Your task to perform on an android device: toggle show notifications on the lock screen Image 0: 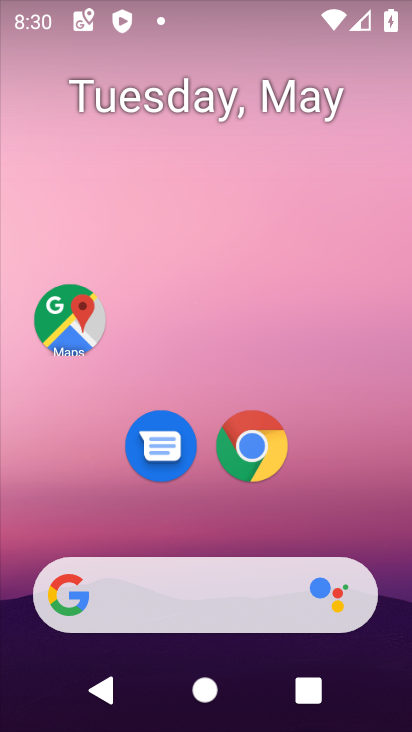
Step 0: drag from (347, 530) to (354, 9)
Your task to perform on an android device: toggle show notifications on the lock screen Image 1: 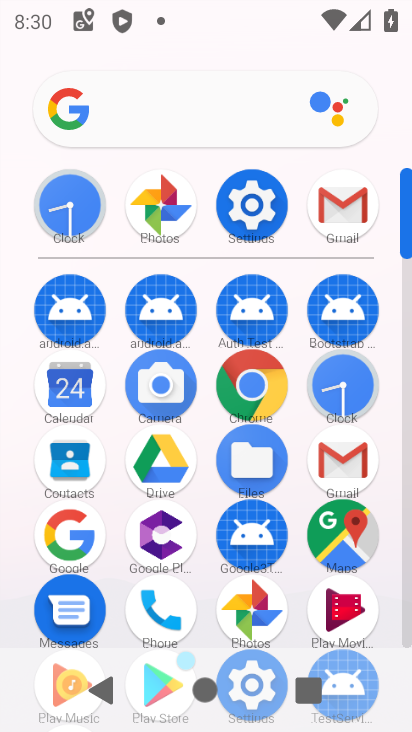
Step 1: click (253, 207)
Your task to perform on an android device: toggle show notifications on the lock screen Image 2: 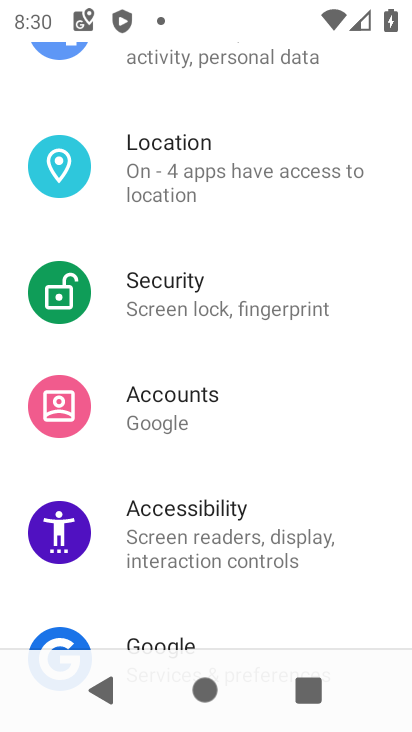
Step 2: drag from (335, 201) to (257, 435)
Your task to perform on an android device: toggle show notifications on the lock screen Image 3: 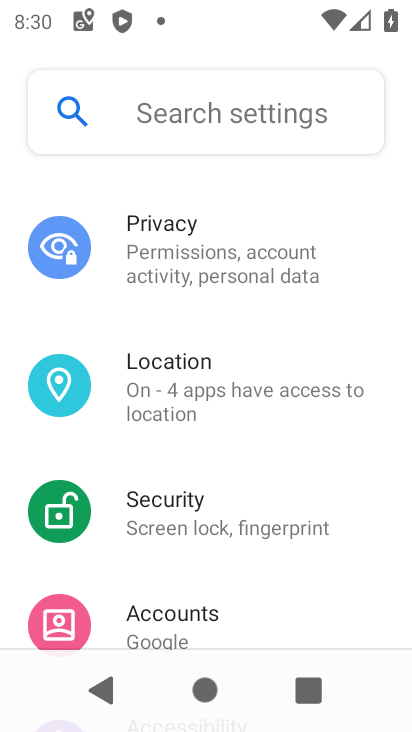
Step 3: drag from (281, 235) to (223, 462)
Your task to perform on an android device: toggle show notifications on the lock screen Image 4: 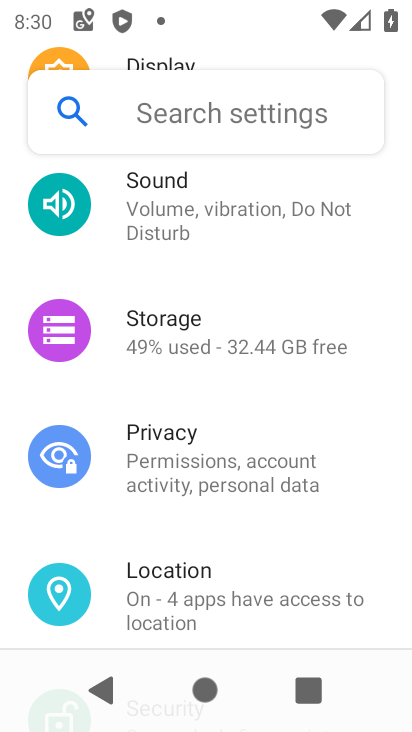
Step 4: drag from (263, 274) to (185, 481)
Your task to perform on an android device: toggle show notifications on the lock screen Image 5: 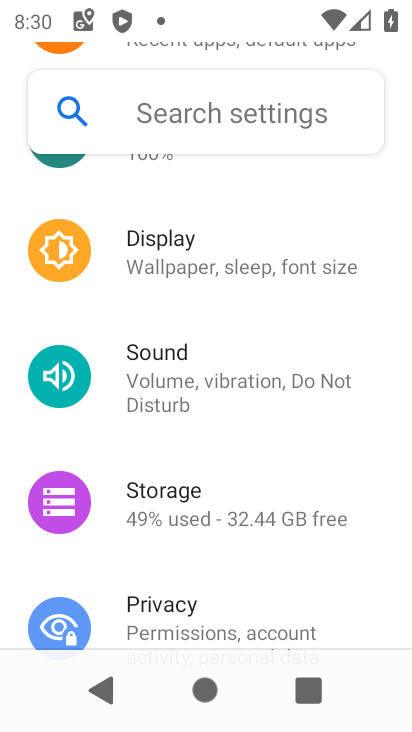
Step 5: drag from (220, 265) to (168, 470)
Your task to perform on an android device: toggle show notifications on the lock screen Image 6: 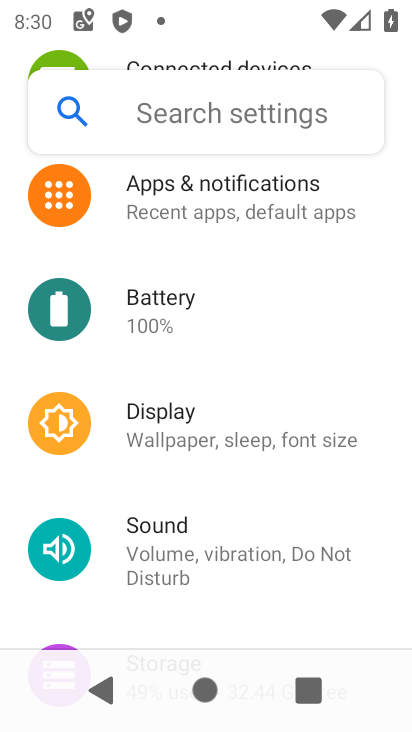
Step 6: click (221, 212)
Your task to perform on an android device: toggle show notifications on the lock screen Image 7: 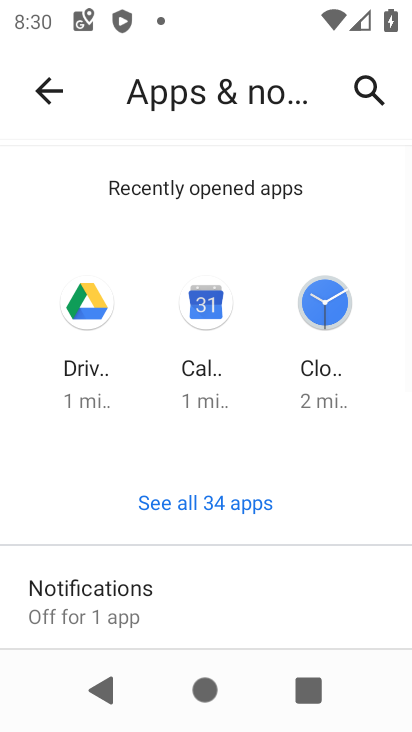
Step 7: drag from (220, 527) to (218, 189)
Your task to perform on an android device: toggle show notifications on the lock screen Image 8: 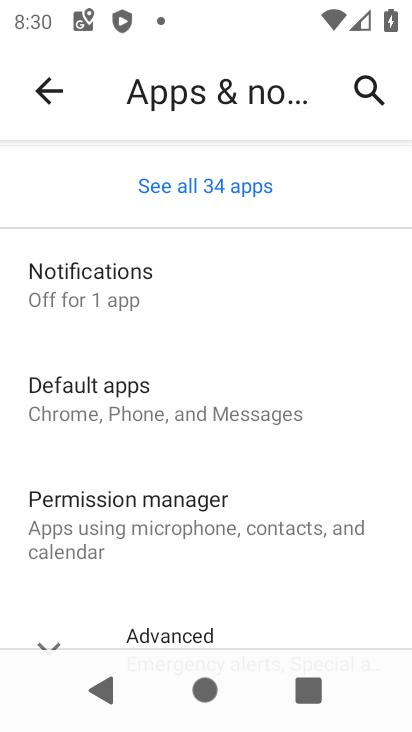
Step 8: click (78, 289)
Your task to perform on an android device: toggle show notifications on the lock screen Image 9: 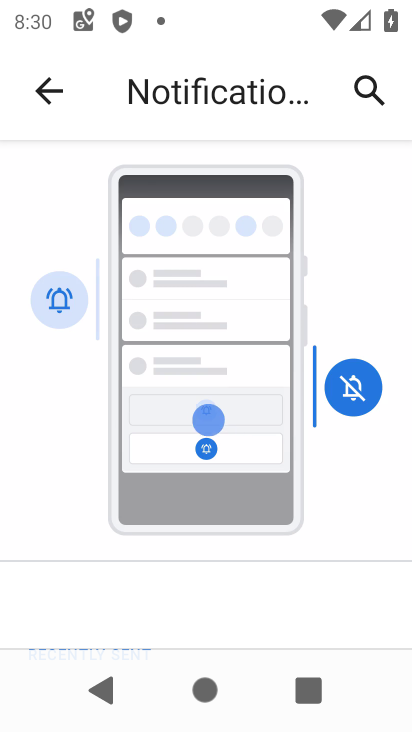
Step 9: drag from (115, 580) to (122, 220)
Your task to perform on an android device: toggle show notifications on the lock screen Image 10: 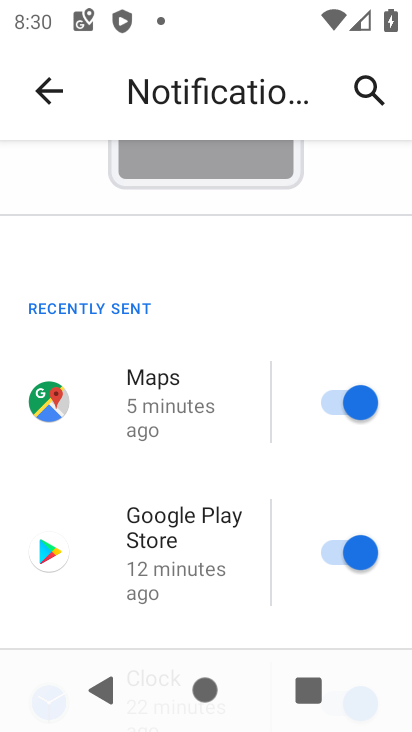
Step 10: drag from (103, 555) to (128, 192)
Your task to perform on an android device: toggle show notifications on the lock screen Image 11: 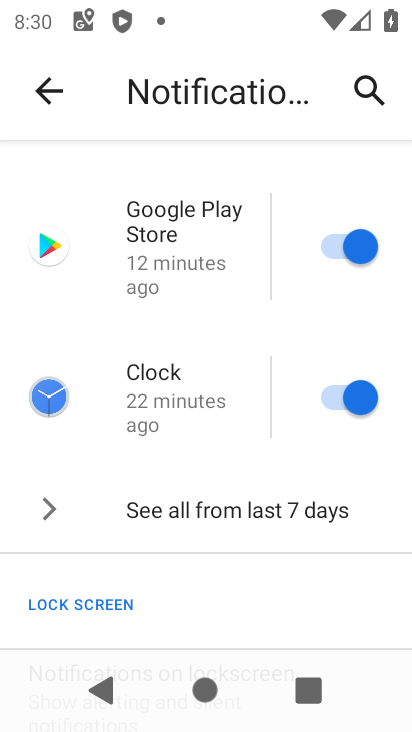
Step 11: drag from (103, 521) to (105, 242)
Your task to perform on an android device: toggle show notifications on the lock screen Image 12: 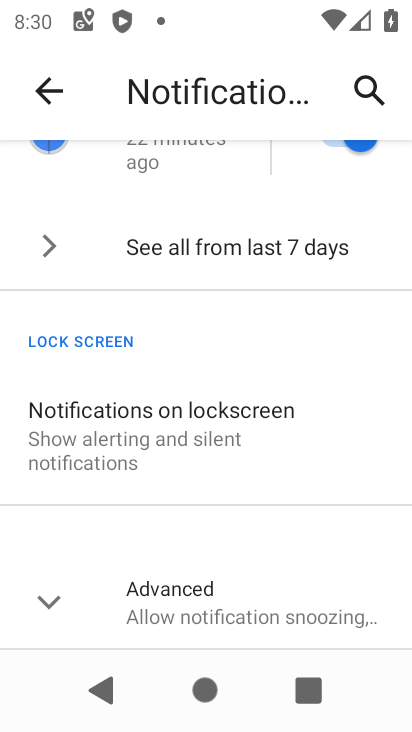
Step 12: click (80, 457)
Your task to perform on an android device: toggle show notifications on the lock screen Image 13: 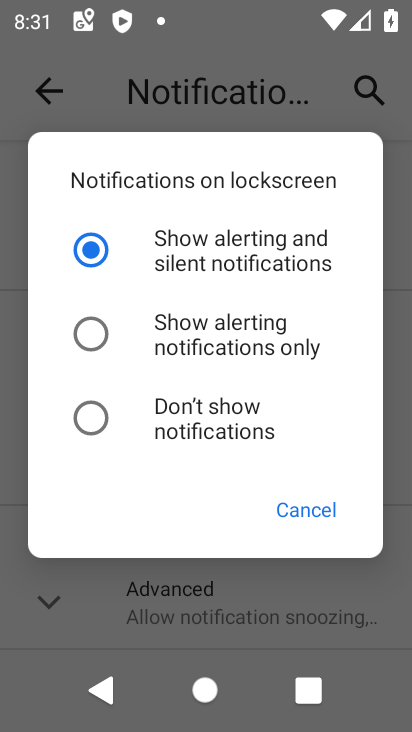
Step 13: click (90, 425)
Your task to perform on an android device: toggle show notifications on the lock screen Image 14: 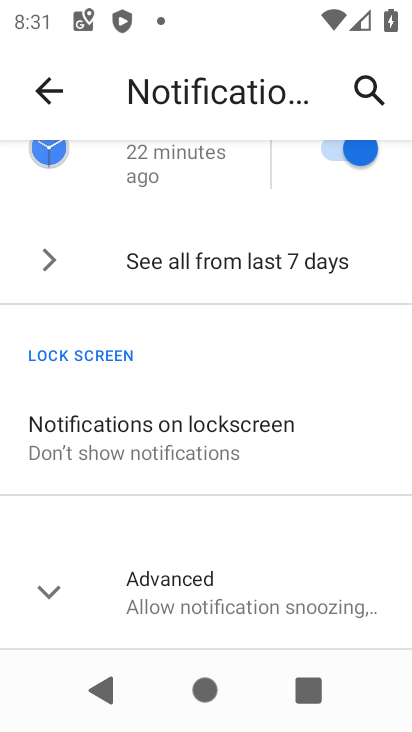
Step 14: task complete